Your task to perform on an android device: change the clock style Image 0: 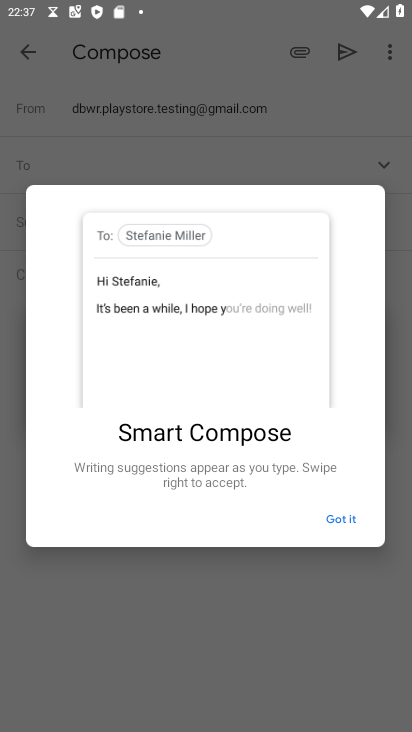
Step 0: press home button
Your task to perform on an android device: change the clock style Image 1: 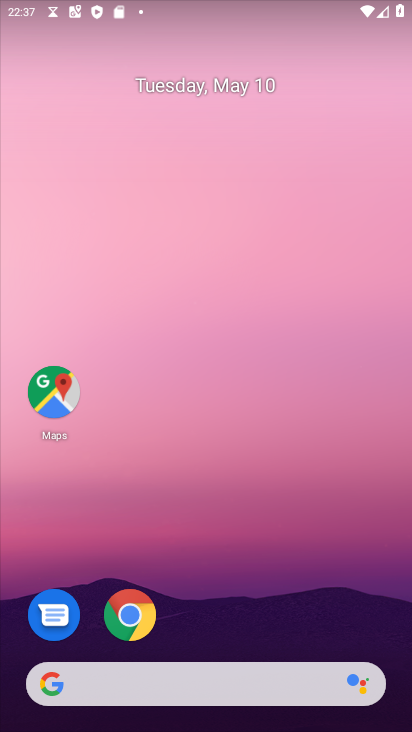
Step 1: drag from (269, 605) to (210, 80)
Your task to perform on an android device: change the clock style Image 2: 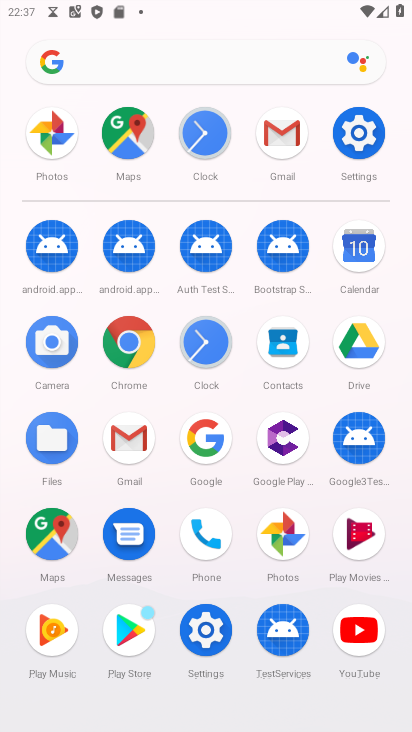
Step 2: click (202, 344)
Your task to perform on an android device: change the clock style Image 3: 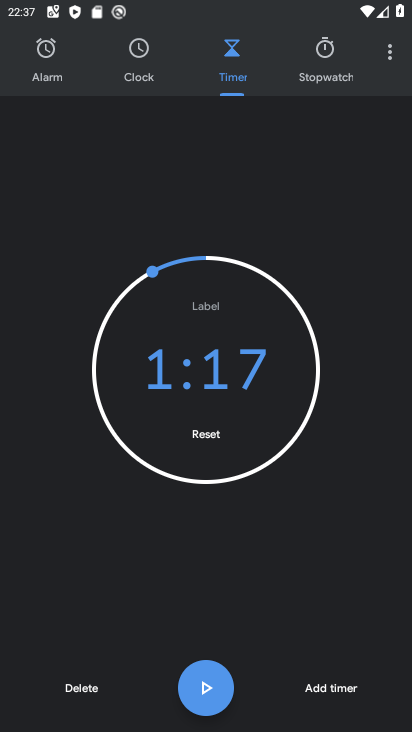
Step 3: click (393, 51)
Your task to perform on an android device: change the clock style Image 4: 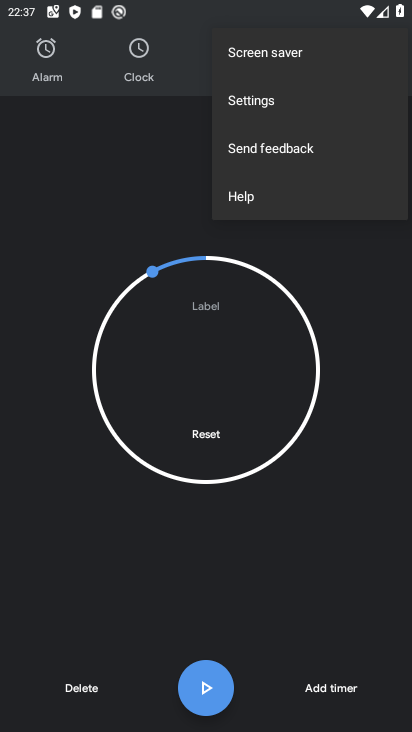
Step 4: click (263, 103)
Your task to perform on an android device: change the clock style Image 5: 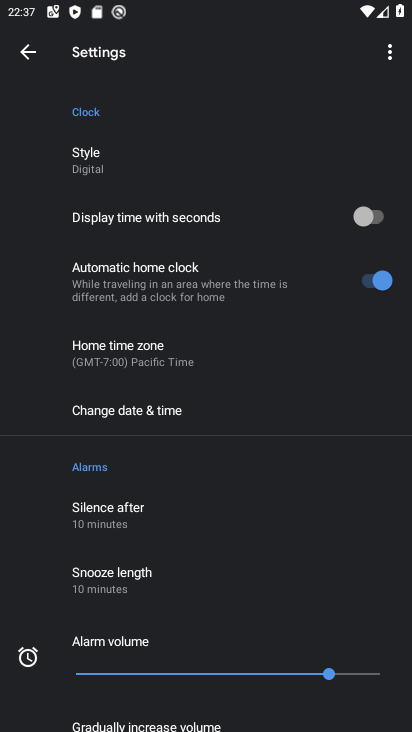
Step 5: click (141, 166)
Your task to perform on an android device: change the clock style Image 6: 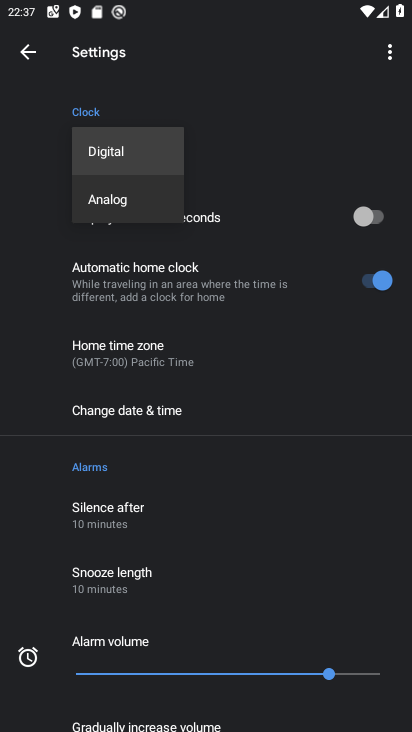
Step 6: click (121, 207)
Your task to perform on an android device: change the clock style Image 7: 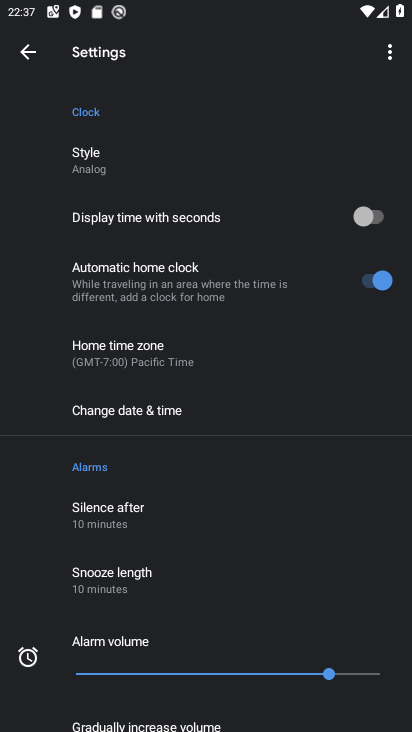
Step 7: task complete